Your task to perform on an android device: Open settings on Google Maps Image 0: 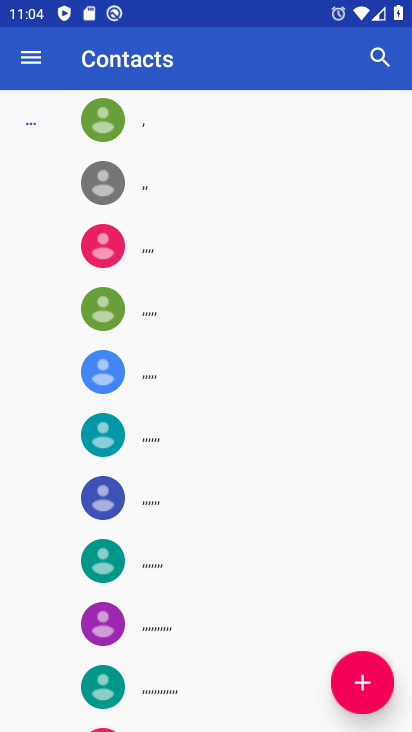
Step 0: press back button
Your task to perform on an android device: Open settings on Google Maps Image 1: 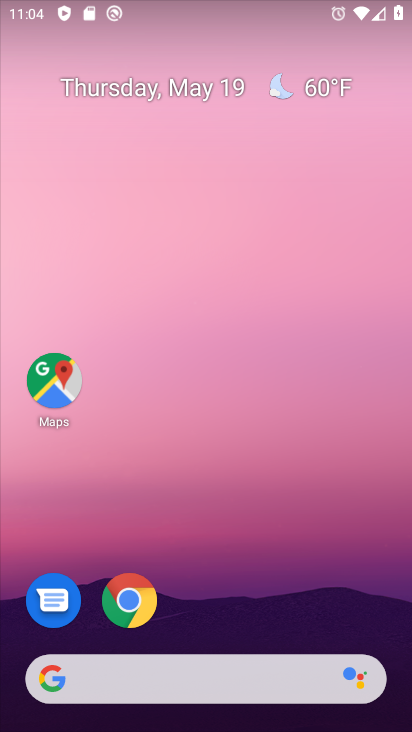
Step 1: drag from (395, 600) to (371, 312)
Your task to perform on an android device: Open settings on Google Maps Image 2: 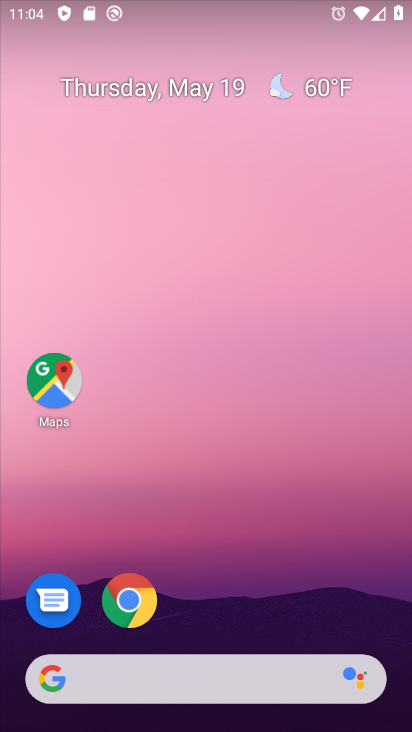
Step 2: drag from (383, 621) to (390, 318)
Your task to perform on an android device: Open settings on Google Maps Image 3: 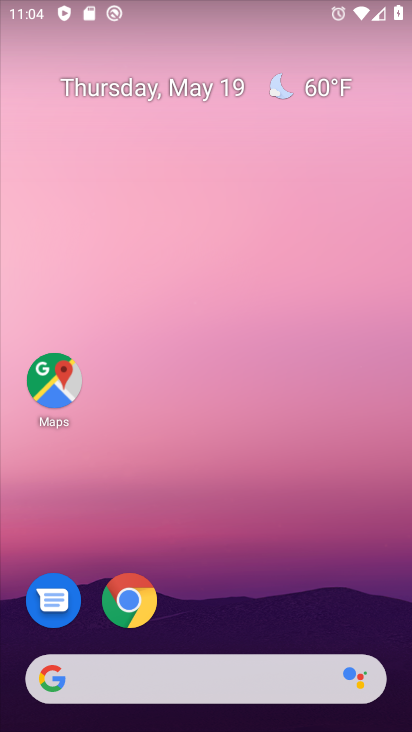
Step 3: drag from (376, 609) to (373, 279)
Your task to perform on an android device: Open settings on Google Maps Image 4: 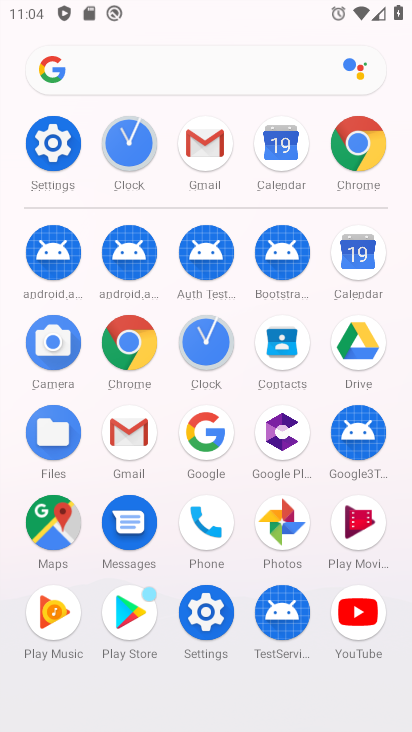
Step 4: click (44, 540)
Your task to perform on an android device: Open settings on Google Maps Image 5: 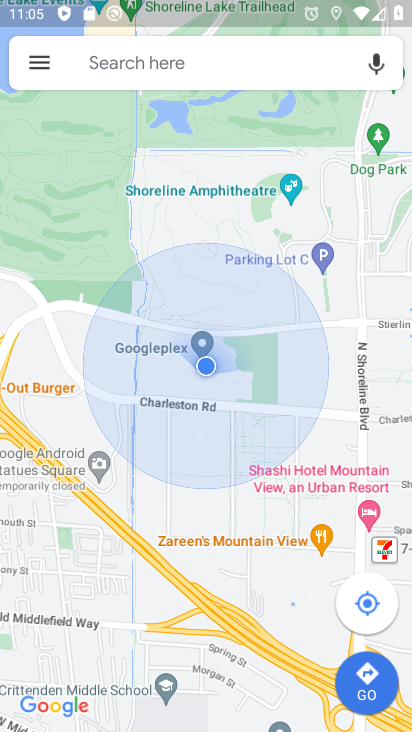
Step 5: task complete